Your task to perform on an android device: choose inbox layout in the gmail app Image 0: 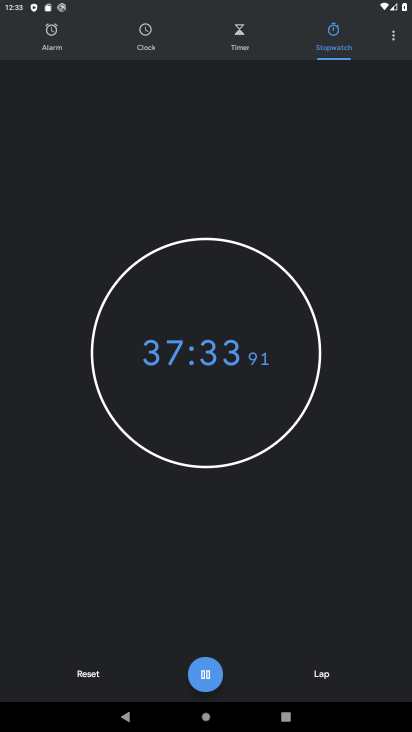
Step 0: press home button
Your task to perform on an android device: choose inbox layout in the gmail app Image 1: 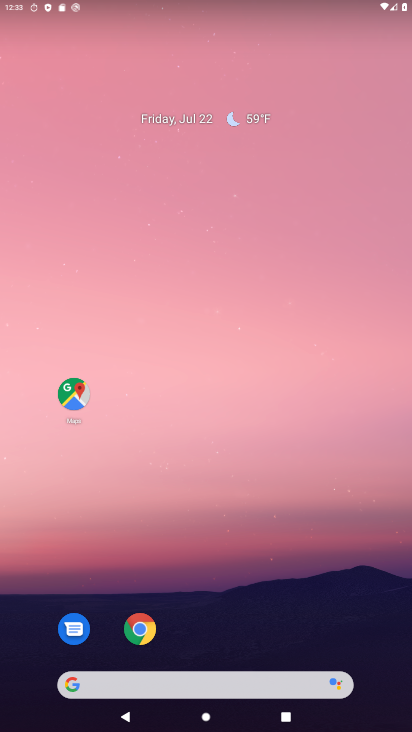
Step 1: drag from (143, 673) to (240, 99)
Your task to perform on an android device: choose inbox layout in the gmail app Image 2: 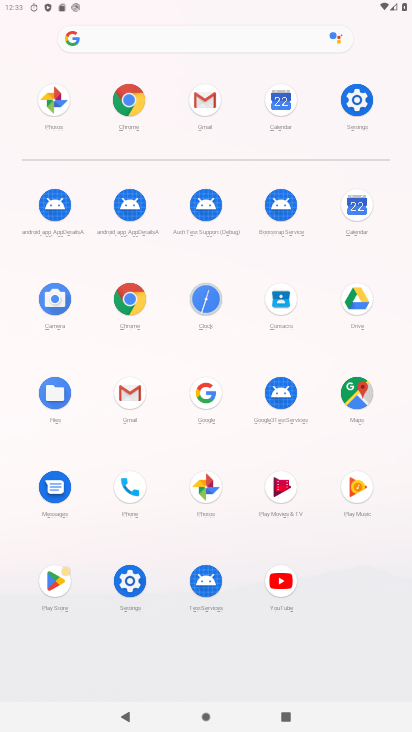
Step 2: click (135, 394)
Your task to perform on an android device: choose inbox layout in the gmail app Image 3: 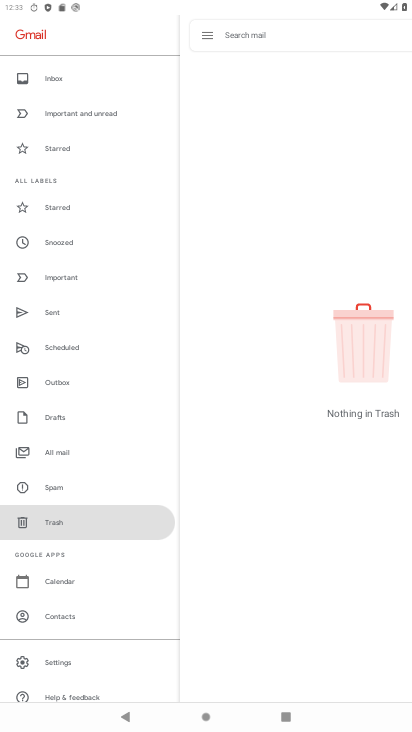
Step 3: click (64, 658)
Your task to perform on an android device: choose inbox layout in the gmail app Image 4: 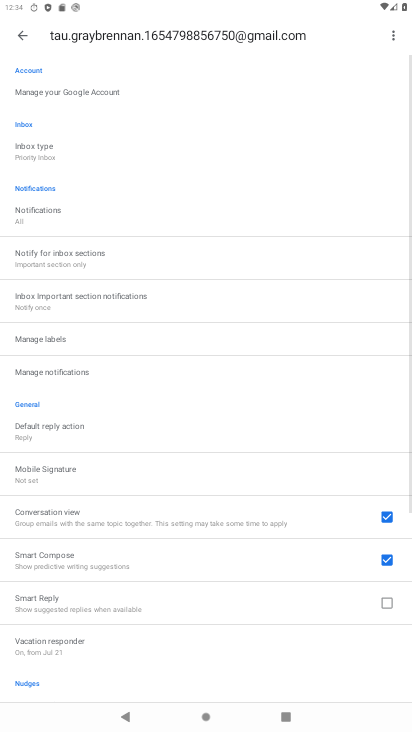
Step 4: click (66, 159)
Your task to perform on an android device: choose inbox layout in the gmail app Image 5: 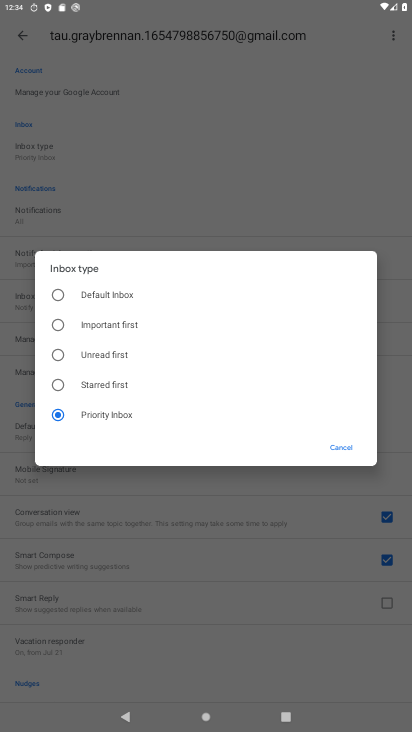
Step 5: click (60, 286)
Your task to perform on an android device: choose inbox layout in the gmail app Image 6: 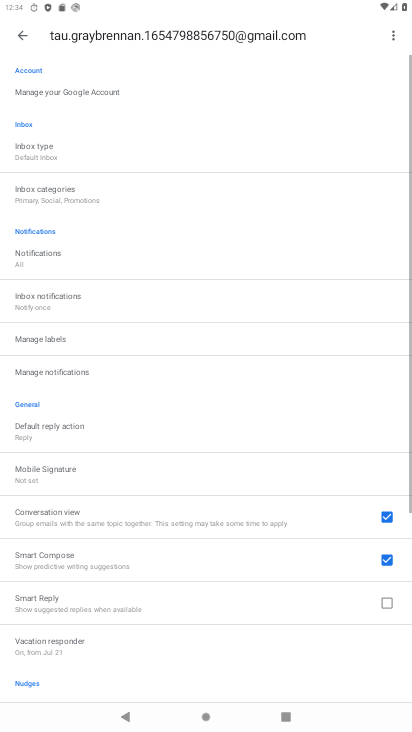
Step 6: task complete